Your task to perform on an android device: When is my next appointment? Image 0: 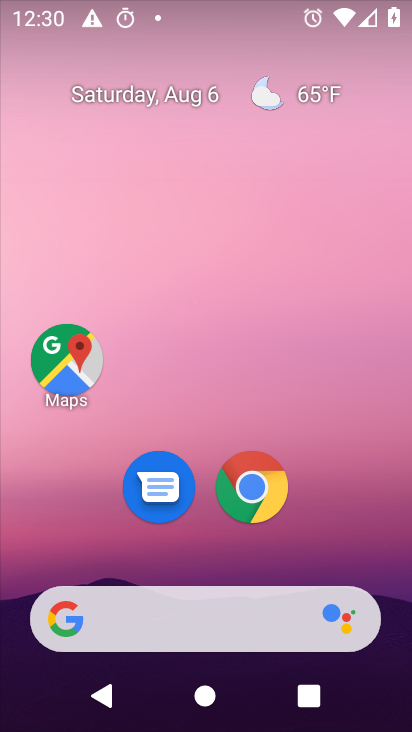
Step 0: drag from (183, 512) to (211, 69)
Your task to perform on an android device: When is my next appointment? Image 1: 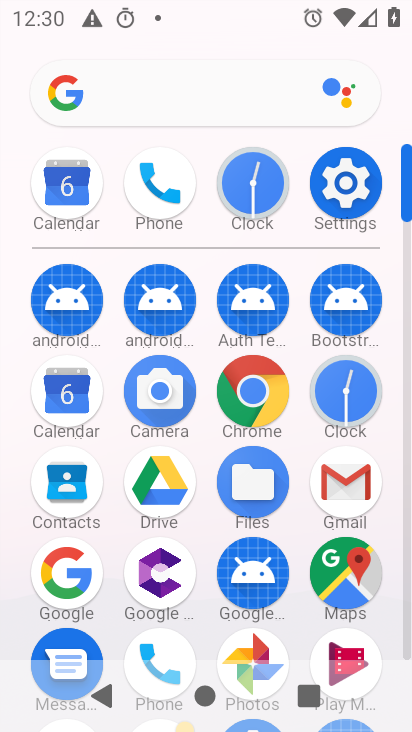
Step 1: click (62, 403)
Your task to perform on an android device: When is my next appointment? Image 2: 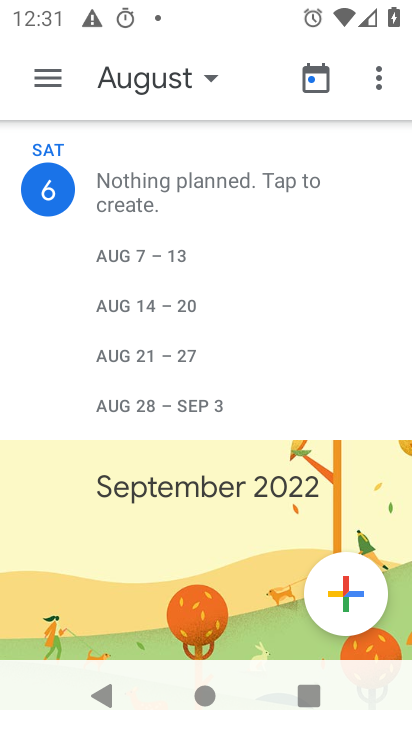
Step 2: task complete